Your task to perform on an android device: Go to Yahoo.com Image 0: 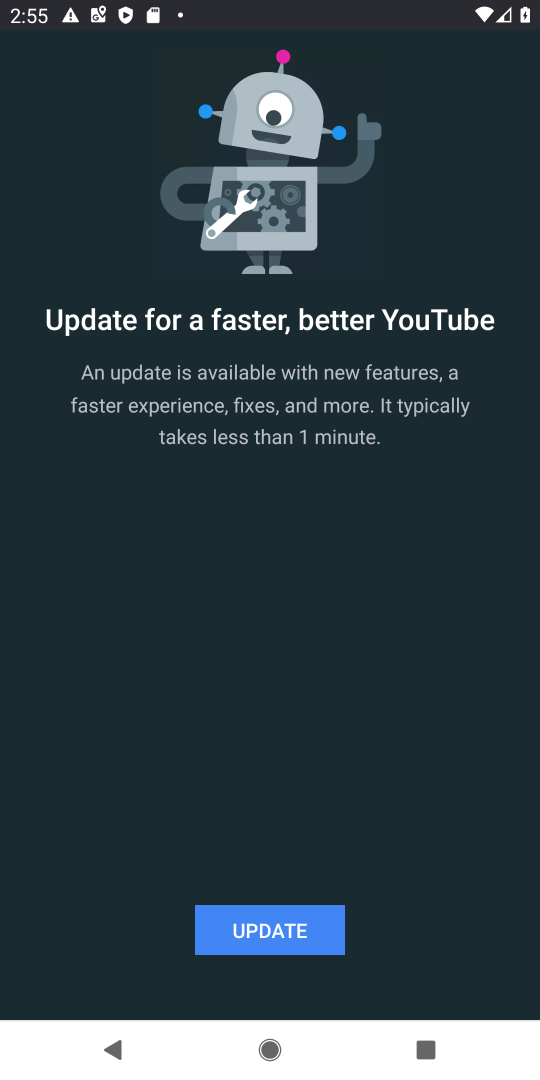
Step 0: press back button
Your task to perform on an android device: Go to Yahoo.com Image 1: 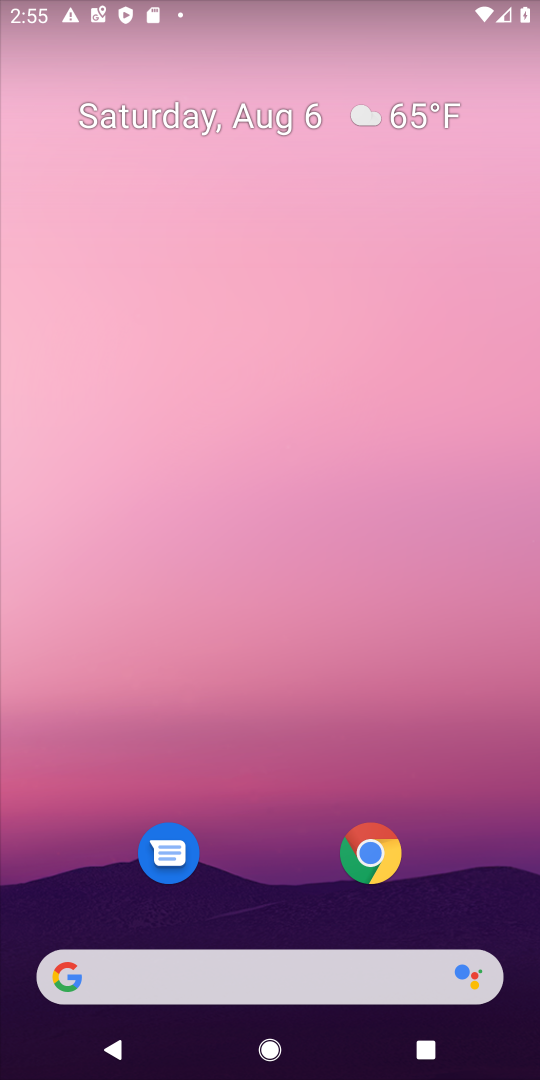
Step 1: click (386, 846)
Your task to perform on an android device: Go to Yahoo.com Image 2: 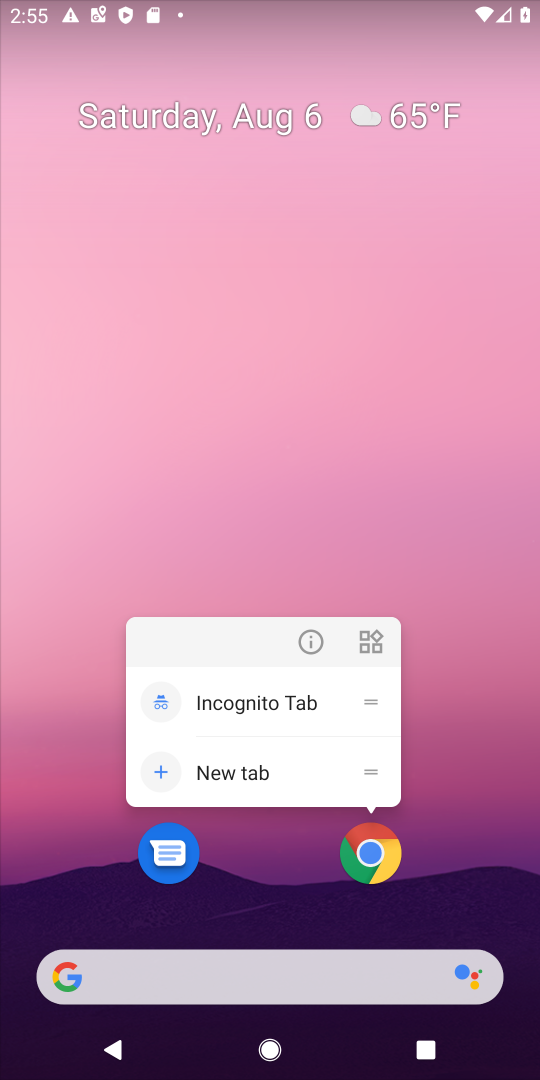
Step 2: click (367, 853)
Your task to perform on an android device: Go to Yahoo.com Image 3: 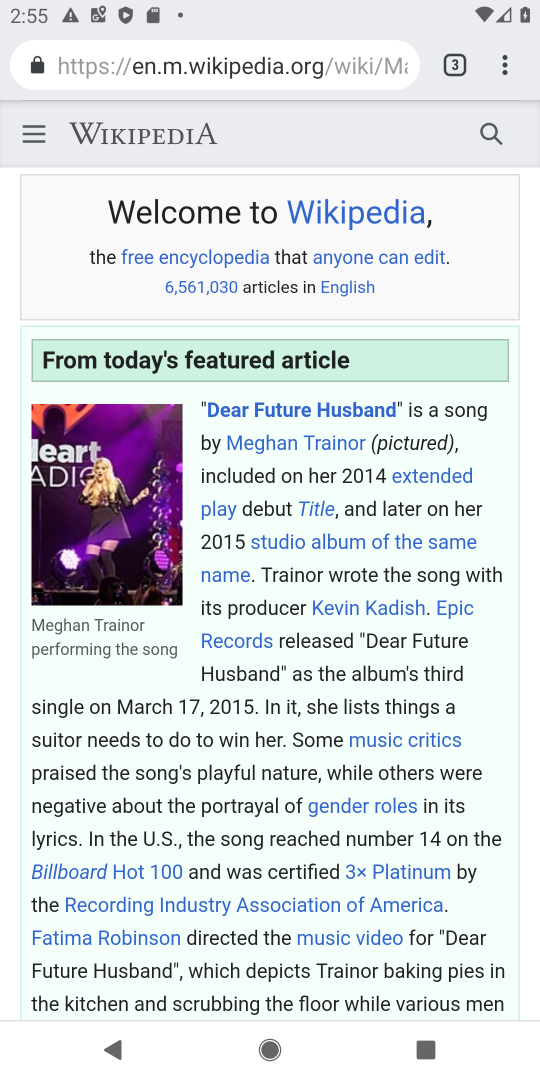
Step 3: click (452, 60)
Your task to perform on an android device: Go to Yahoo.com Image 4: 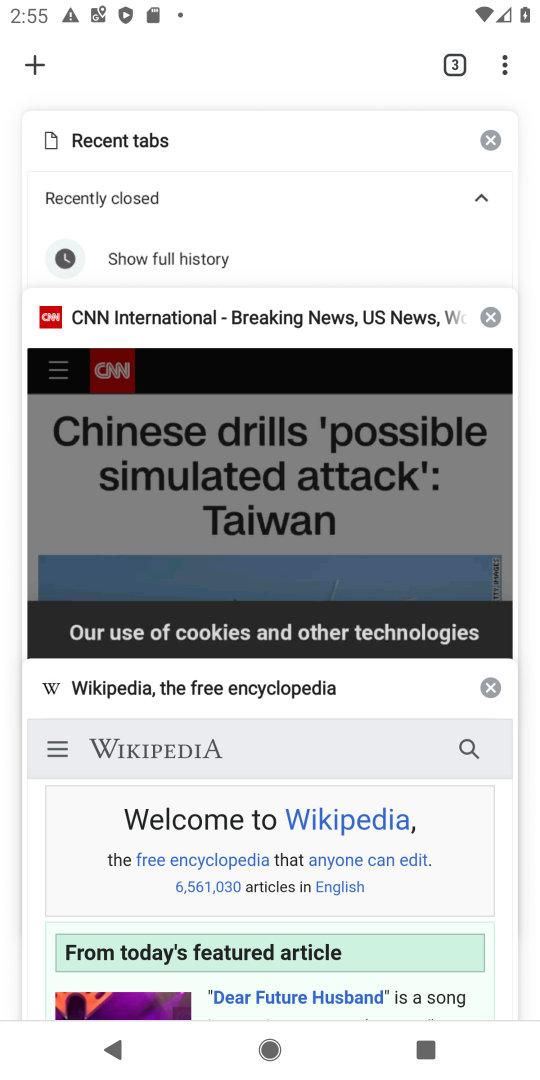
Step 4: click (50, 69)
Your task to perform on an android device: Go to Yahoo.com Image 5: 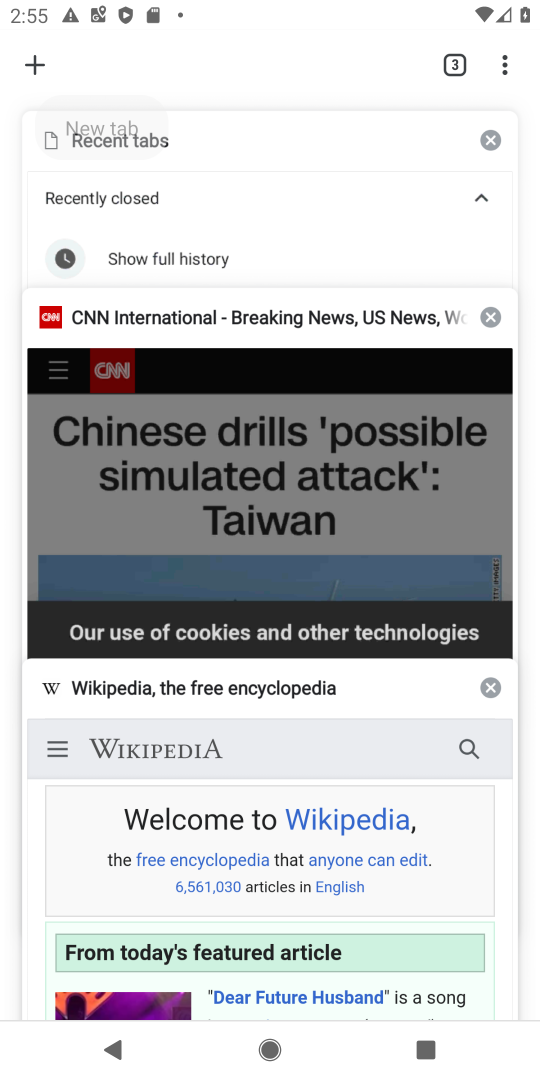
Step 5: click (18, 52)
Your task to perform on an android device: Go to Yahoo.com Image 6: 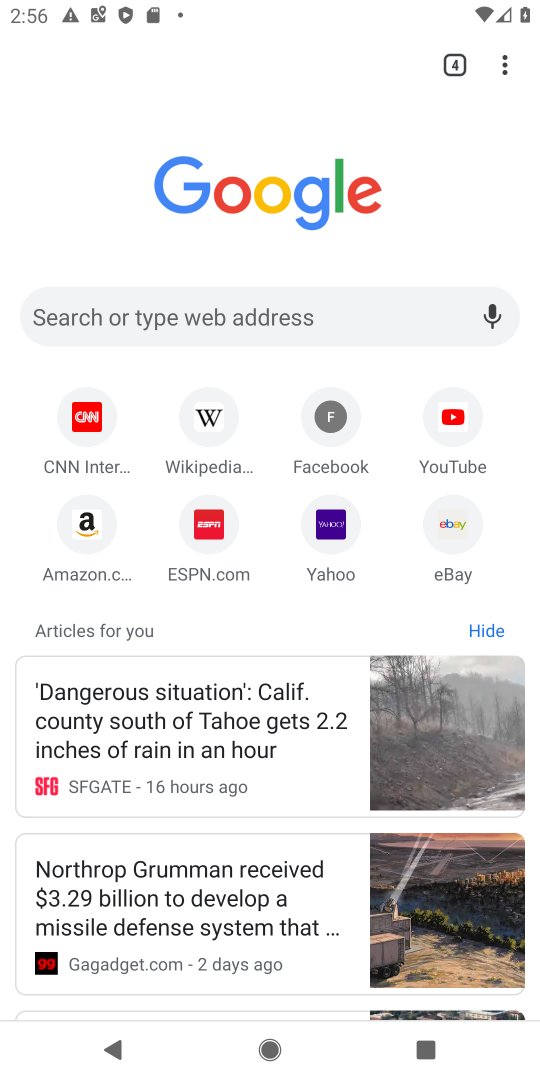
Step 6: click (320, 531)
Your task to perform on an android device: Go to Yahoo.com Image 7: 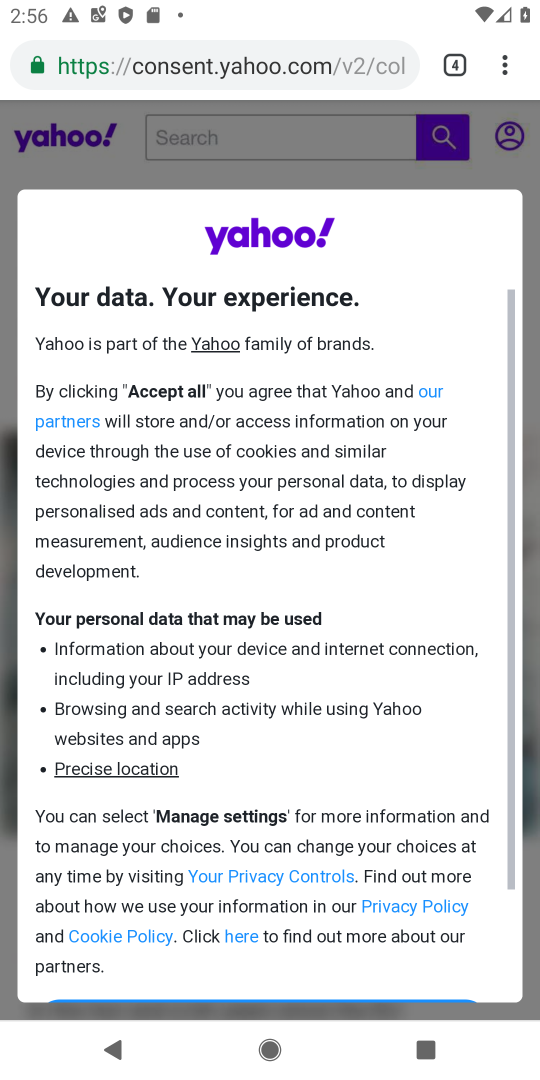
Step 7: task complete